Your task to perform on an android device: Check the news Image 0: 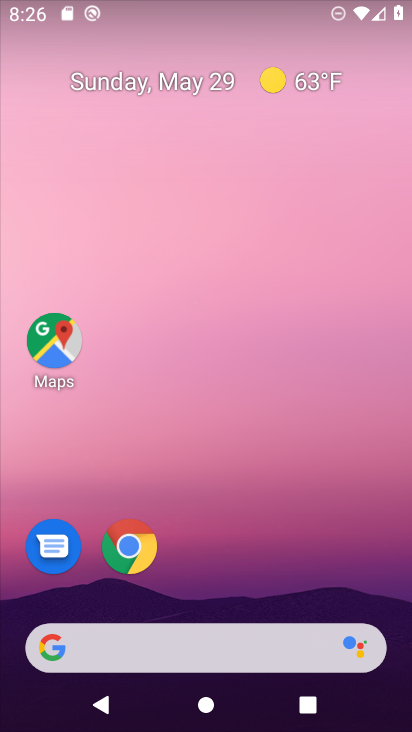
Step 0: press home button
Your task to perform on an android device: Check the news Image 1: 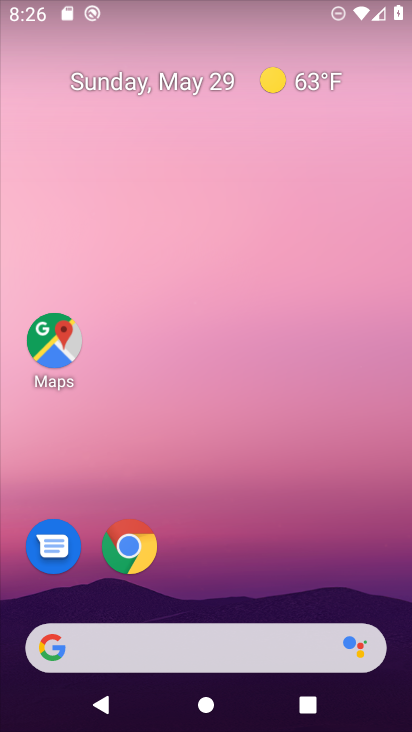
Step 1: click (52, 649)
Your task to perform on an android device: Check the news Image 2: 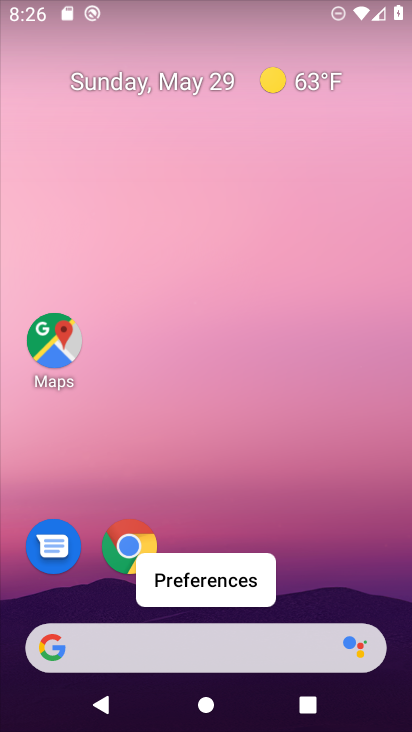
Step 2: click (54, 649)
Your task to perform on an android device: Check the news Image 3: 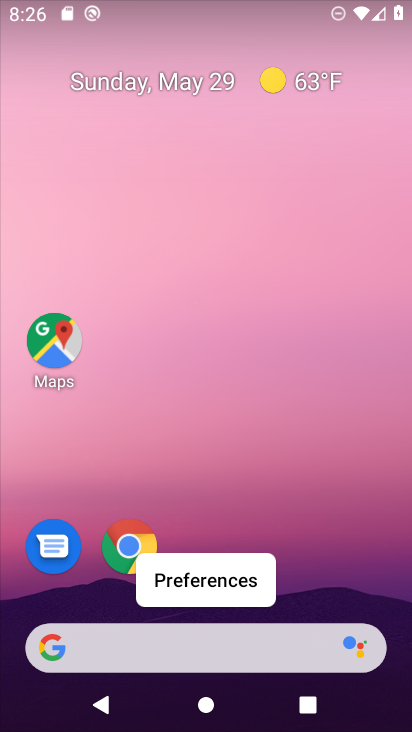
Step 3: click (59, 649)
Your task to perform on an android device: Check the news Image 4: 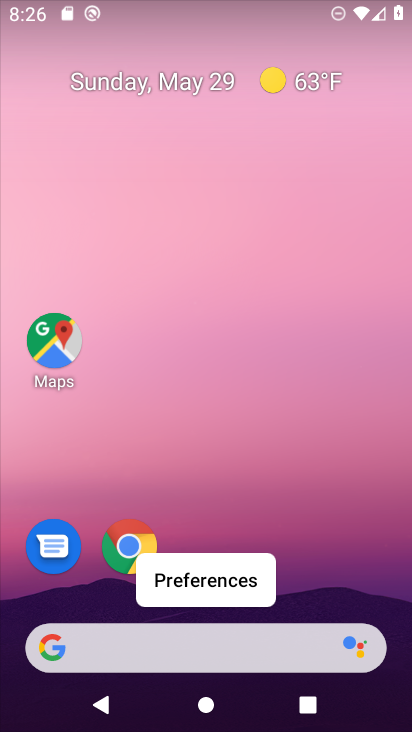
Step 4: click (63, 648)
Your task to perform on an android device: Check the news Image 5: 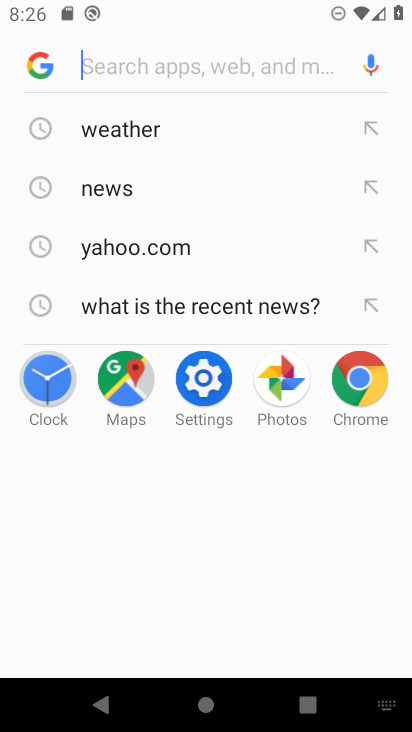
Step 5: click (85, 197)
Your task to perform on an android device: Check the news Image 6: 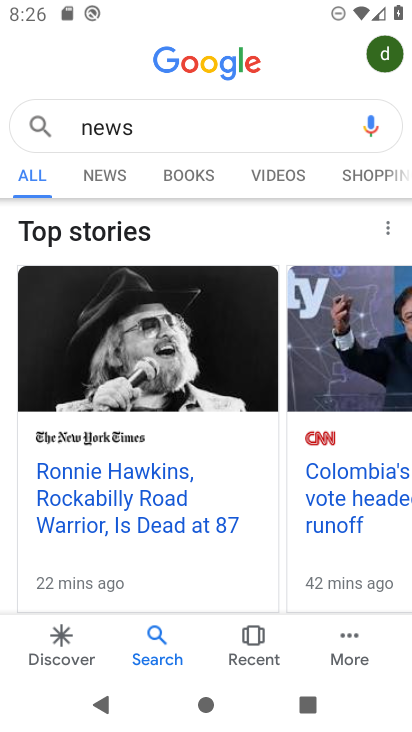
Step 6: click (111, 171)
Your task to perform on an android device: Check the news Image 7: 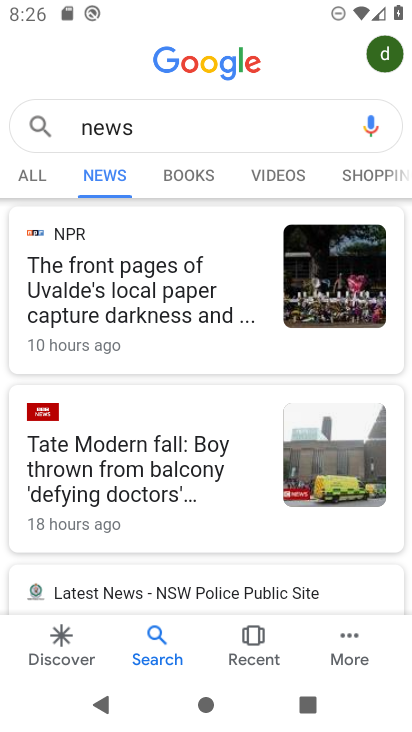
Step 7: task complete